Your task to perform on an android device: turn on translation in the chrome app Image 0: 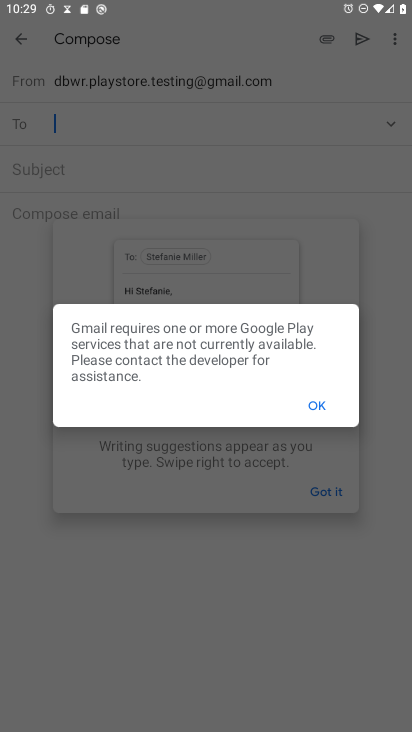
Step 0: press home button
Your task to perform on an android device: turn on translation in the chrome app Image 1: 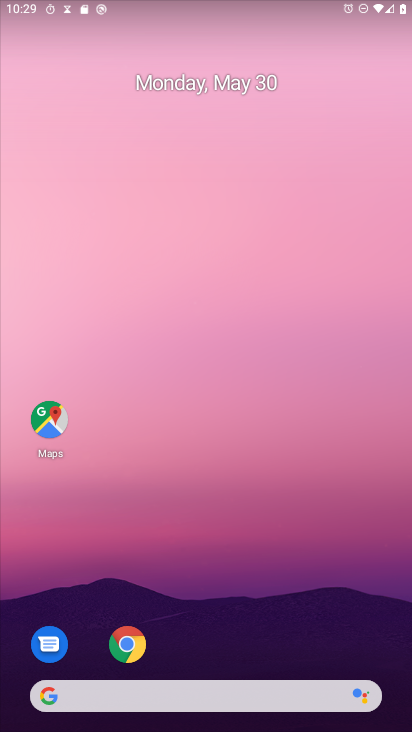
Step 1: click (135, 634)
Your task to perform on an android device: turn on translation in the chrome app Image 2: 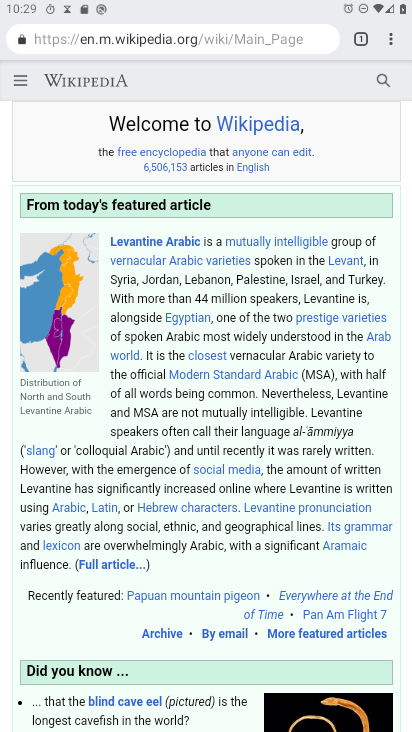
Step 2: click (383, 39)
Your task to perform on an android device: turn on translation in the chrome app Image 3: 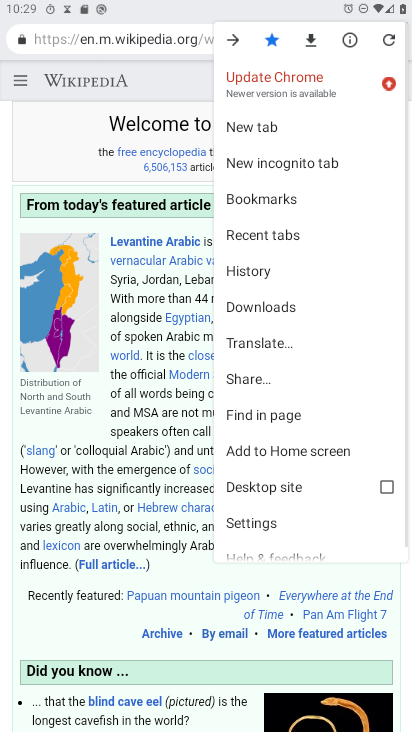
Step 3: click (278, 515)
Your task to perform on an android device: turn on translation in the chrome app Image 4: 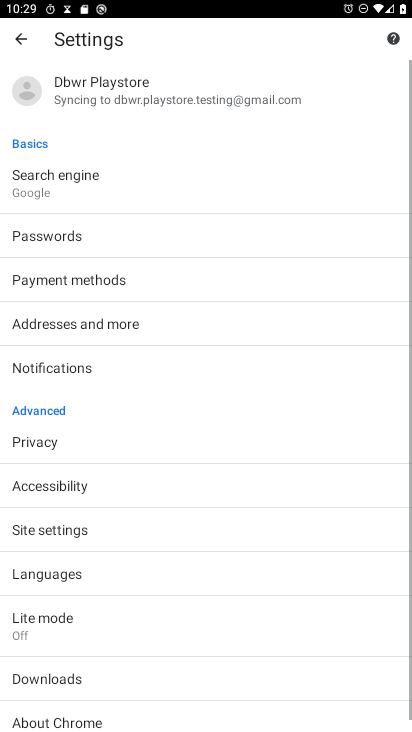
Step 4: drag from (145, 638) to (217, 403)
Your task to perform on an android device: turn on translation in the chrome app Image 5: 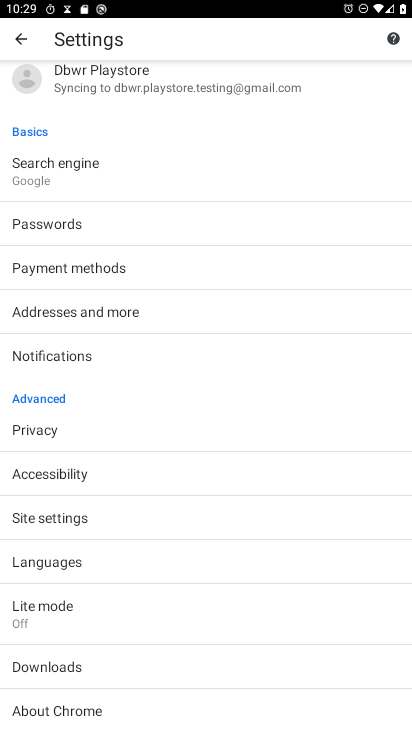
Step 5: click (124, 564)
Your task to perform on an android device: turn on translation in the chrome app Image 6: 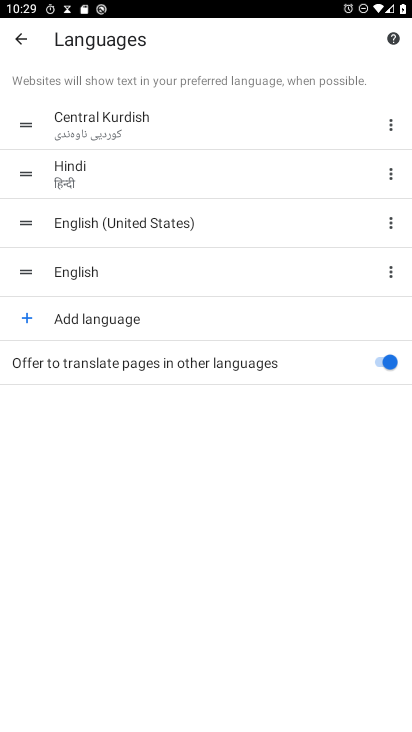
Step 6: task complete